Your task to perform on an android device: change text size in settings app Image 0: 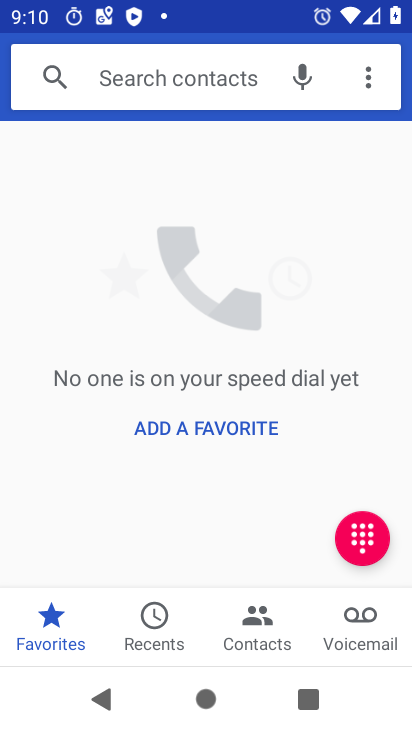
Step 0: press home button
Your task to perform on an android device: change text size in settings app Image 1: 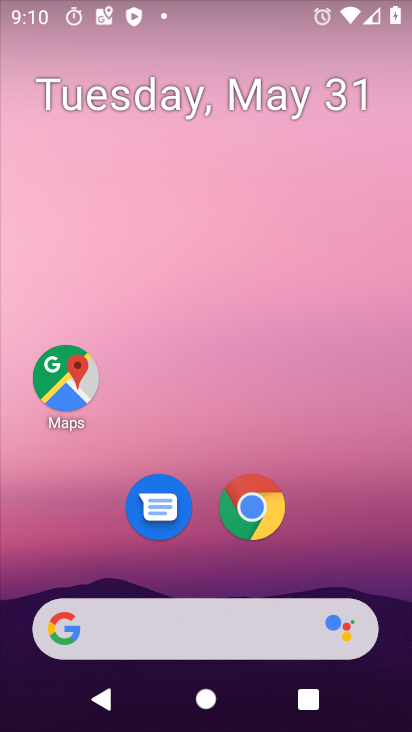
Step 1: drag from (353, 588) to (354, 12)
Your task to perform on an android device: change text size in settings app Image 2: 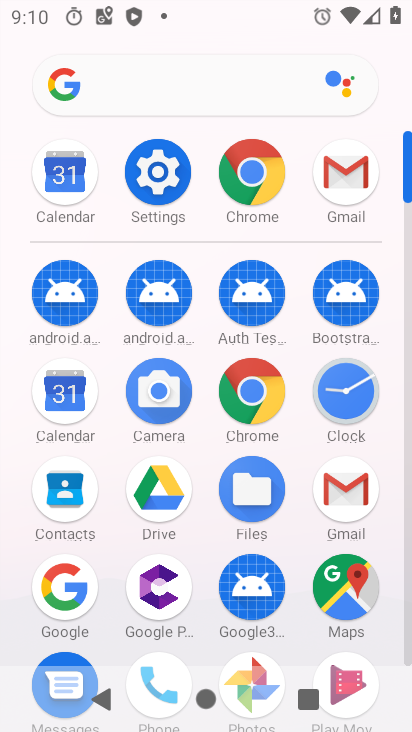
Step 2: click (150, 172)
Your task to perform on an android device: change text size in settings app Image 3: 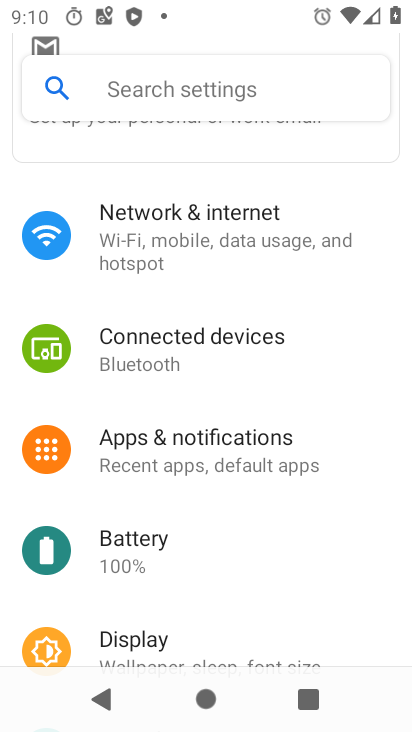
Step 3: drag from (310, 581) to (303, 374)
Your task to perform on an android device: change text size in settings app Image 4: 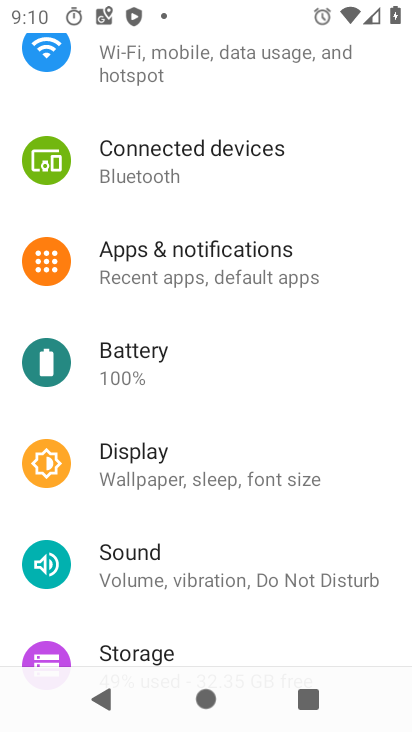
Step 4: click (132, 460)
Your task to perform on an android device: change text size in settings app Image 5: 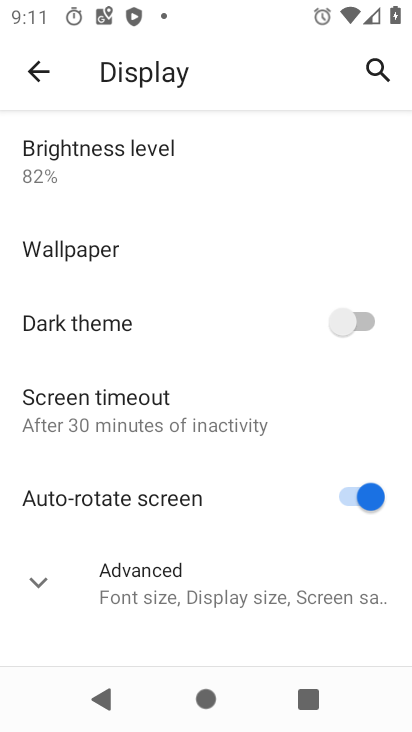
Step 5: click (36, 586)
Your task to perform on an android device: change text size in settings app Image 6: 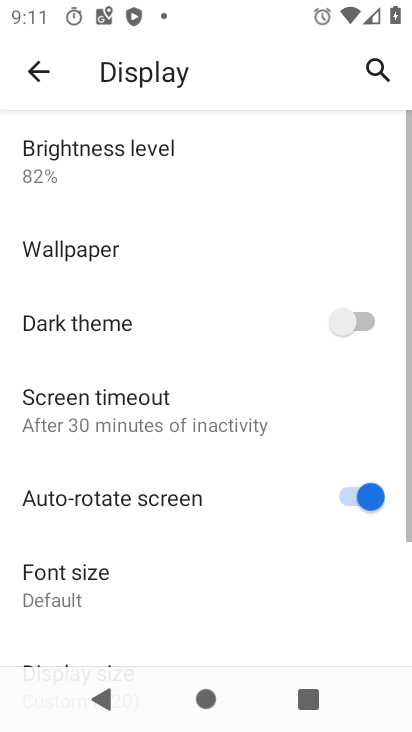
Step 6: drag from (113, 572) to (119, 392)
Your task to perform on an android device: change text size in settings app Image 7: 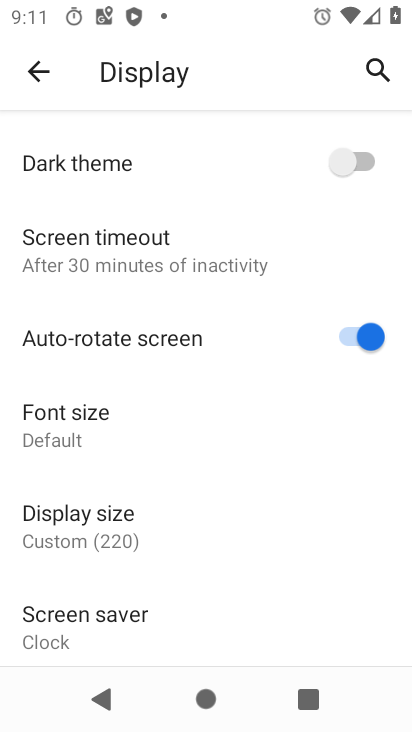
Step 7: click (72, 443)
Your task to perform on an android device: change text size in settings app Image 8: 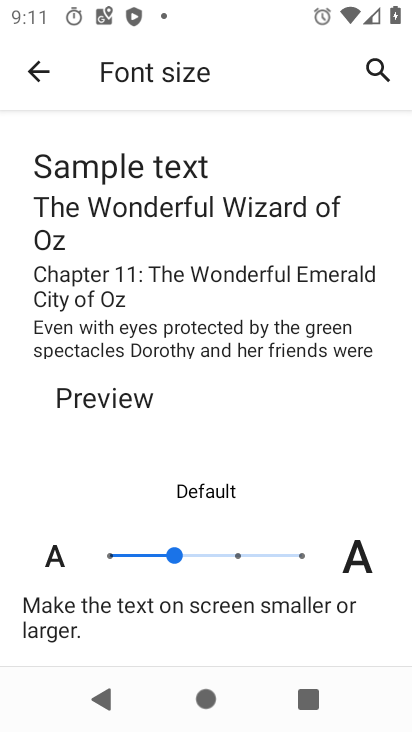
Step 8: click (107, 556)
Your task to perform on an android device: change text size in settings app Image 9: 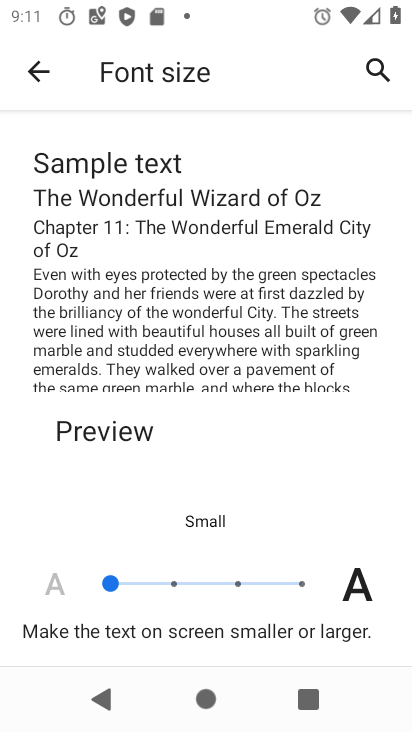
Step 9: task complete